Your task to perform on an android device: find which apps use the phone's location Image 0: 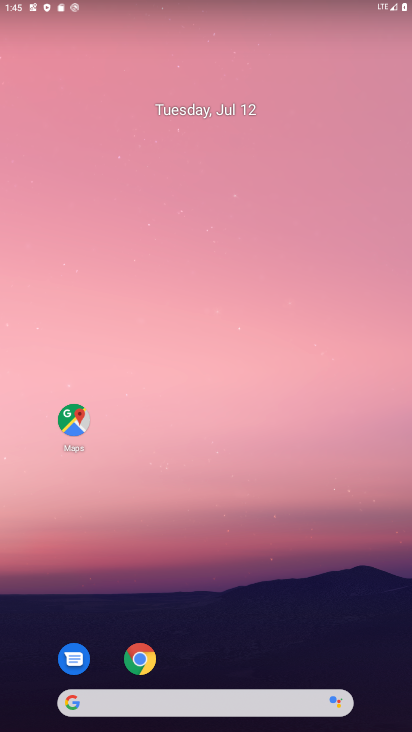
Step 0: click (409, 555)
Your task to perform on an android device: find which apps use the phone's location Image 1: 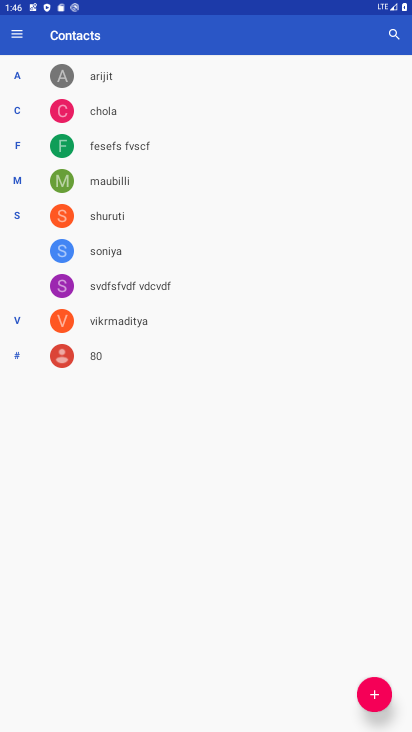
Step 1: press home button
Your task to perform on an android device: find which apps use the phone's location Image 2: 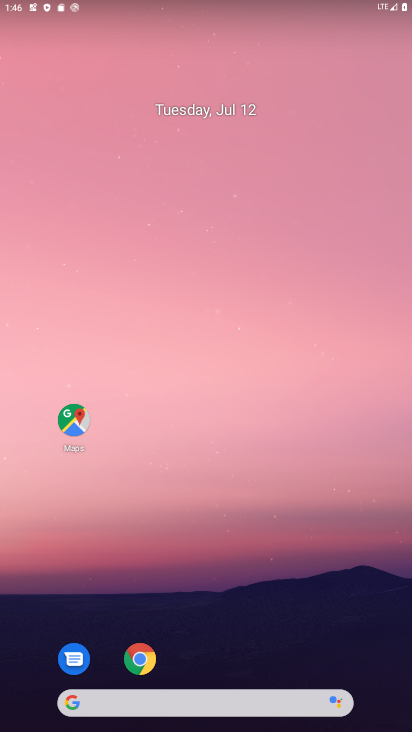
Step 2: drag from (232, 728) to (216, 186)
Your task to perform on an android device: find which apps use the phone's location Image 3: 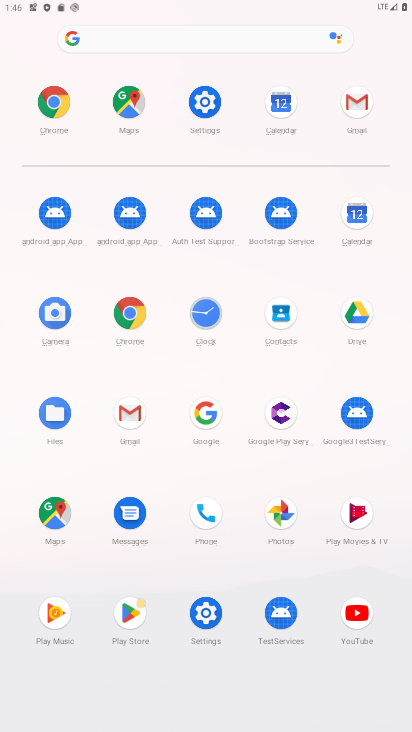
Step 3: click (201, 104)
Your task to perform on an android device: find which apps use the phone's location Image 4: 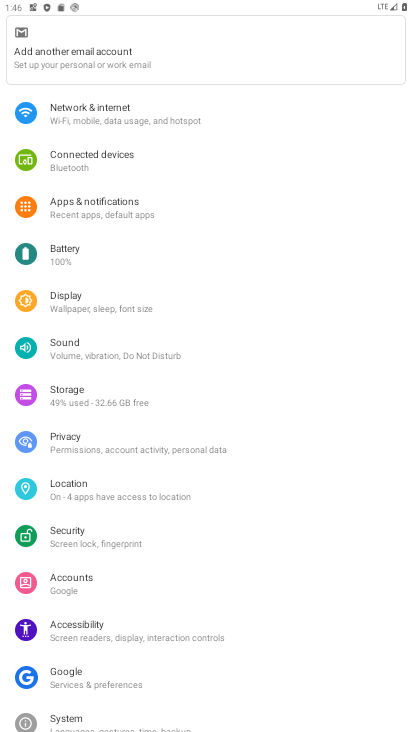
Step 4: click (66, 486)
Your task to perform on an android device: find which apps use the phone's location Image 5: 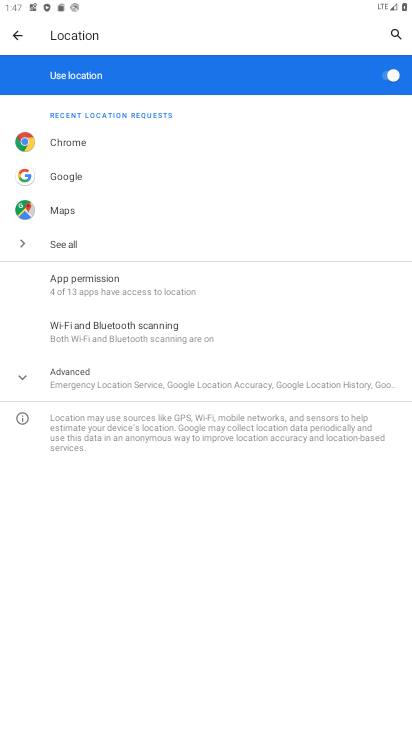
Step 5: click (72, 282)
Your task to perform on an android device: find which apps use the phone's location Image 6: 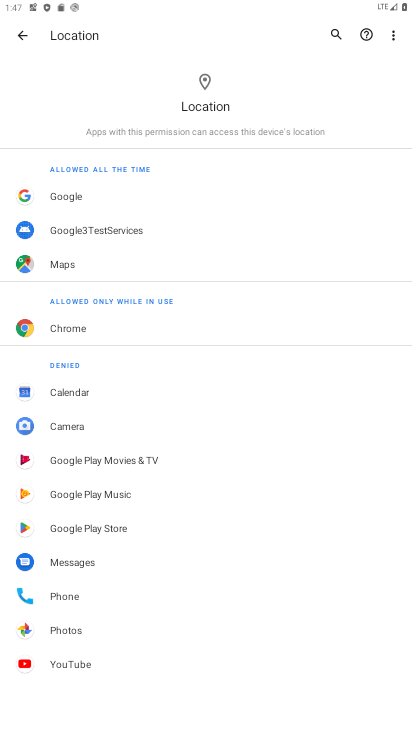
Step 6: task complete